Your task to perform on an android device: add a label to a message in the gmail app Image 0: 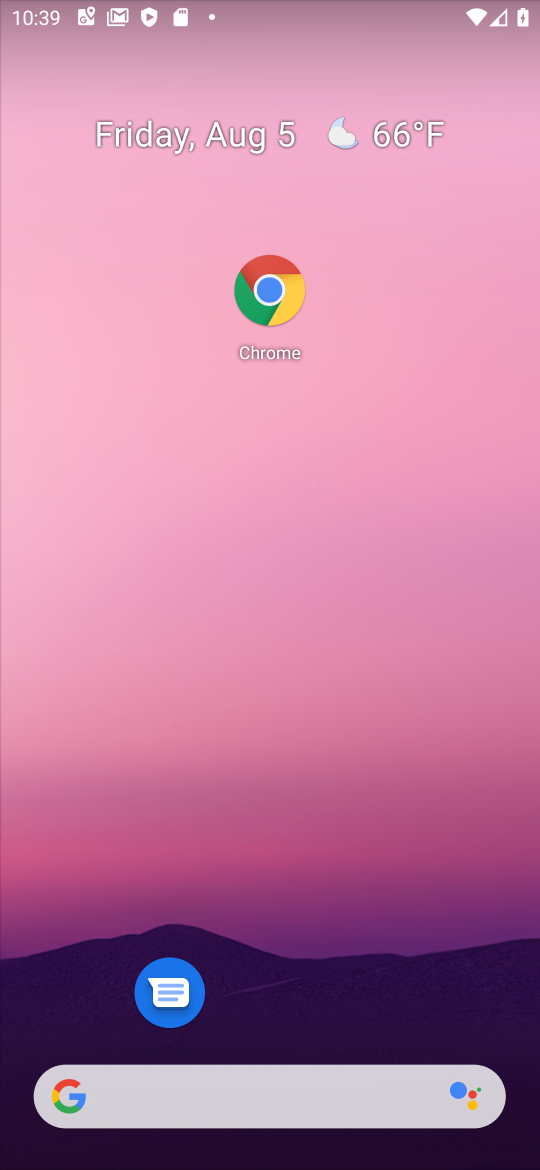
Step 0: drag from (105, 955) to (538, 581)
Your task to perform on an android device: add a label to a message in the gmail app Image 1: 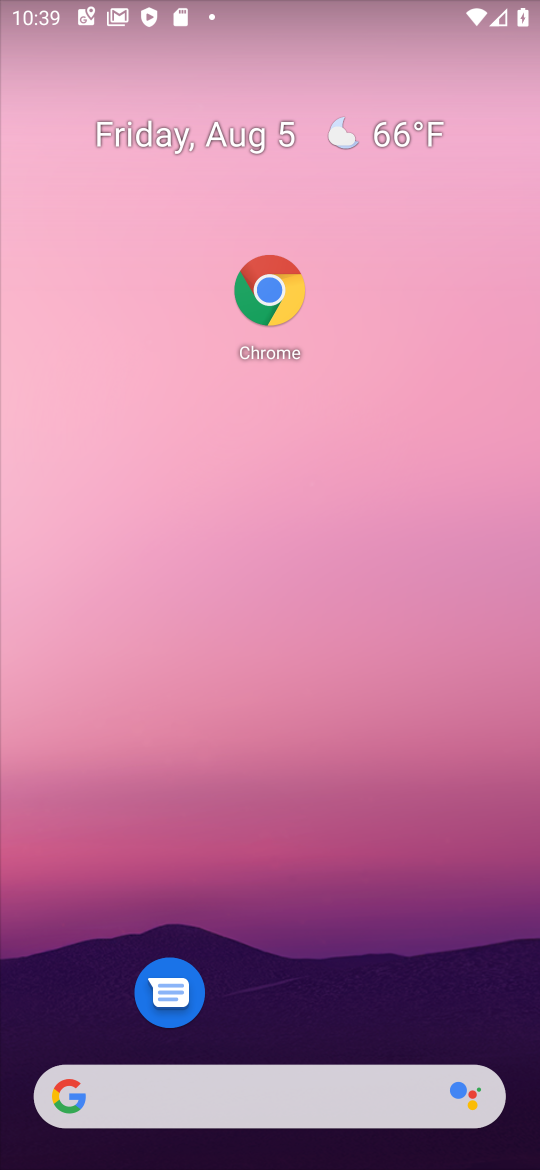
Step 1: drag from (233, 605) to (129, 7)
Your task to perform on an android device: add a label to a message in the gmail app Image 2: 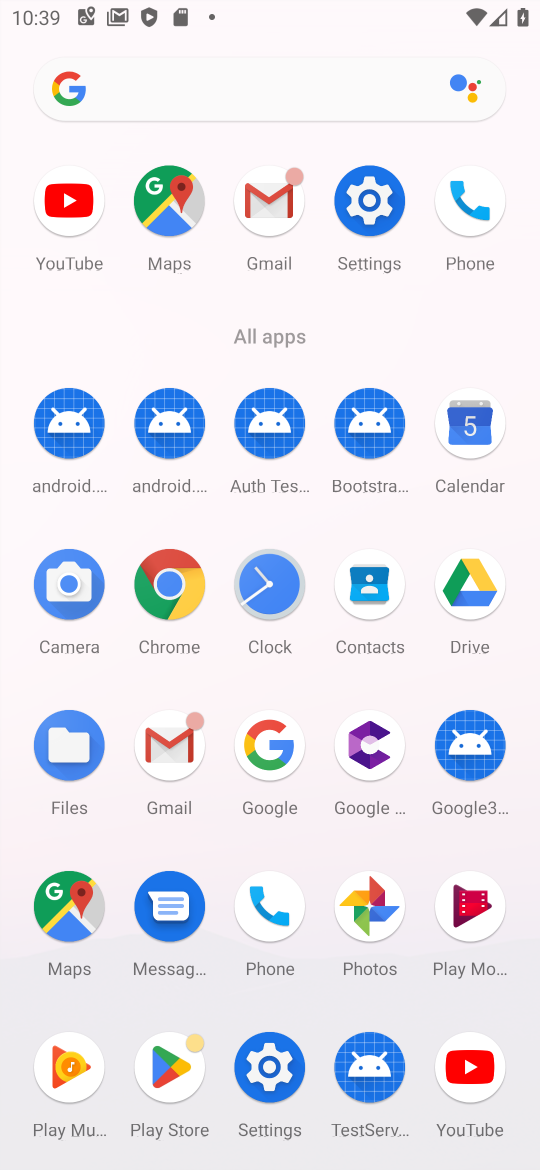
Step 2: click (262, 204)
Your task to perform on an android device: add a label to a message in the gmail app Image 3: 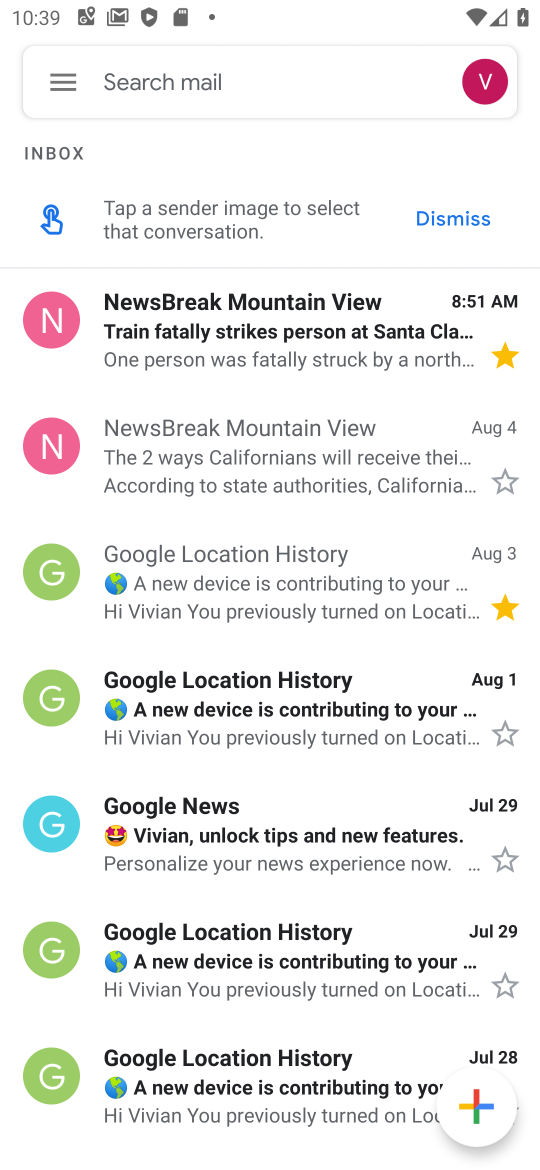
Step 3: task complete